Your task to perform on an android device: turn off improve location accuracy Image 0: 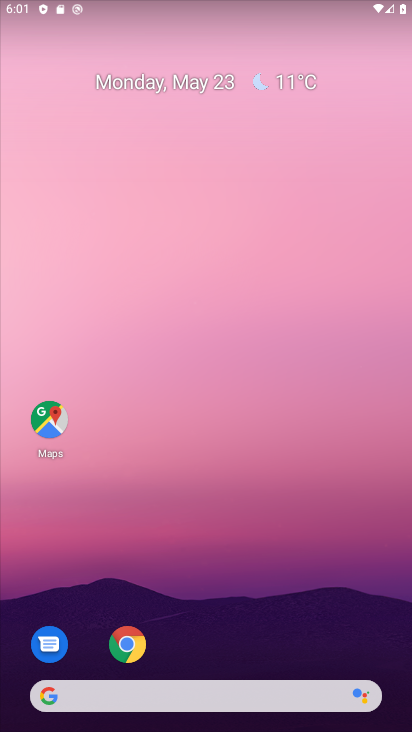
Step 0: drag from (229, 600) to (184, 317)
Your task to perform on an android device: turn off improve location accuracy Image 1: 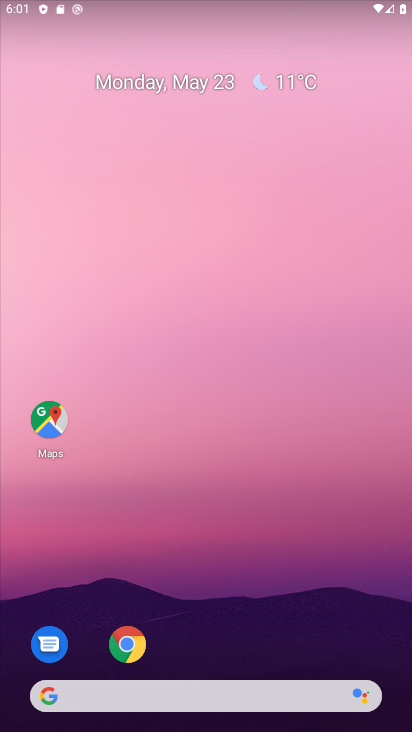
Step 1: drag from (224, 580) to (148, 89)
Your task to perform on an android device: turn off improve location accuracy Image 2: 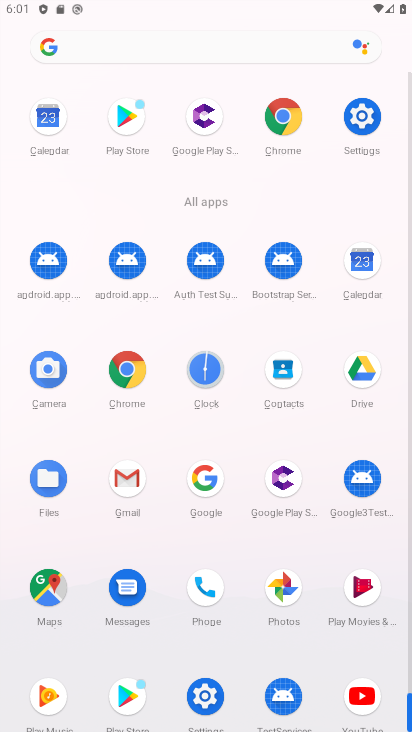
Step 2: click (362, 141)
Your task to perform on an android device: turn off improve location accuracy Image 3: 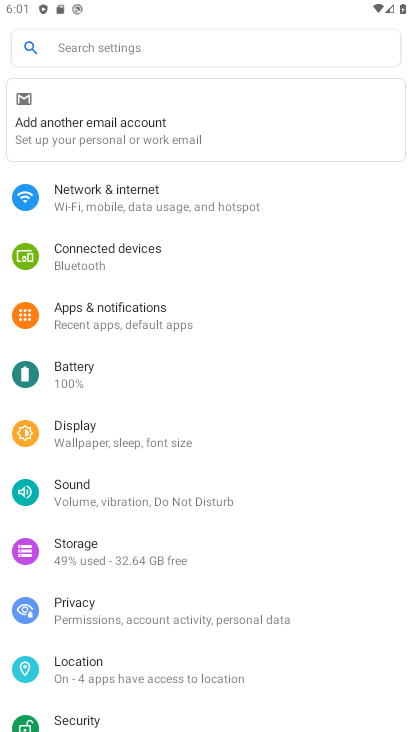
Step 3: click (89, 670)
Your task to perform on an android device: turn off improve location accuracy Image 4: 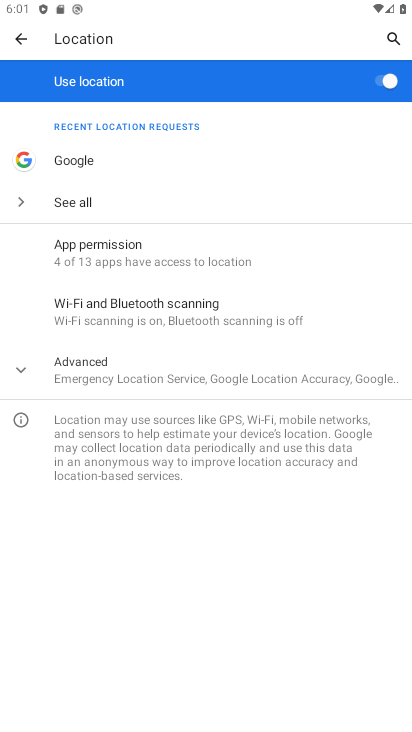
Step 4: click (59, 363)
Your task to perform on an android device: turn off improve location accuracy Image 5: 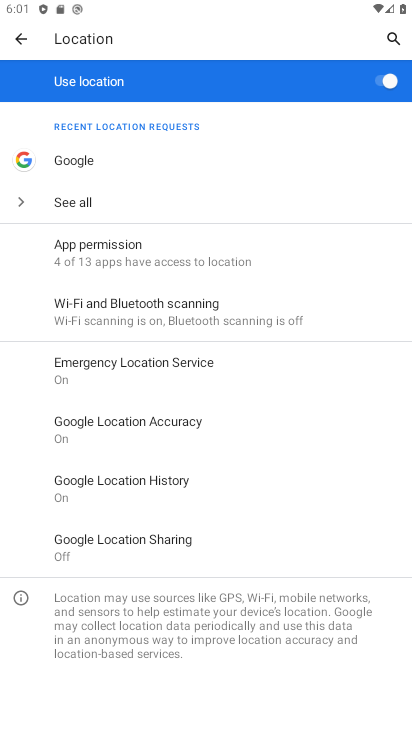
Step 5: click (133, 443)
Your task to perform on an android device: turn off improve location accuracy Image 6: 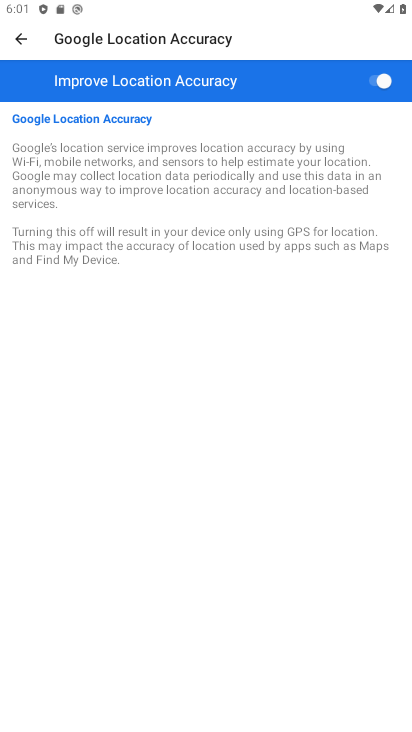
Step 6: click (376, 80)
Your task to perform on an android device: turn off improve location accuracy Image 7: 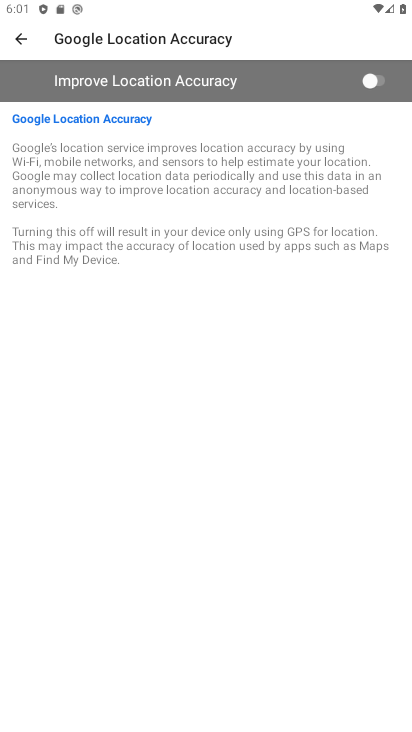
Step 7: task complete